Your task to perform on an android device: change notification settings in the gmail app Image 0: 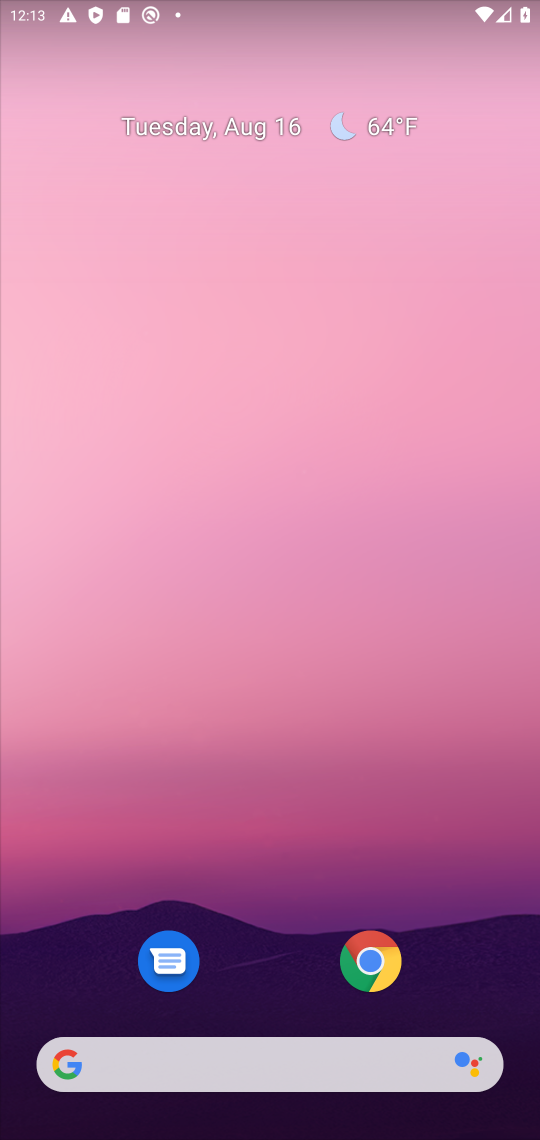
Step 0: drag from (300, 937) to (357, 86)
Your task to perform on an android device: change notification settings in the gmail app Image 1: 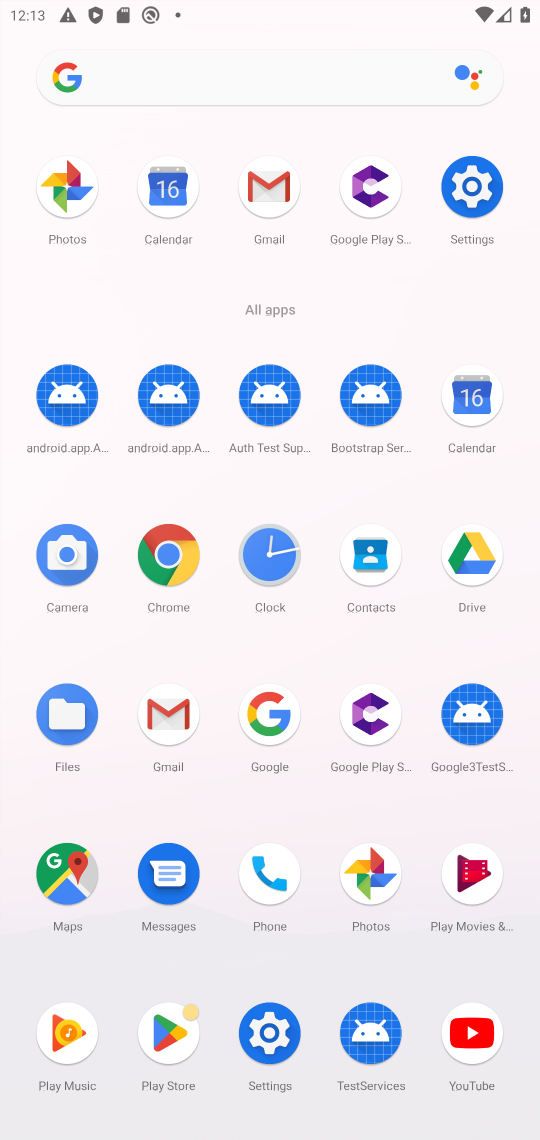
Step 1: click (163, 708)
Your task to perform on an android device: change notification settings in the gmail app Image 2: 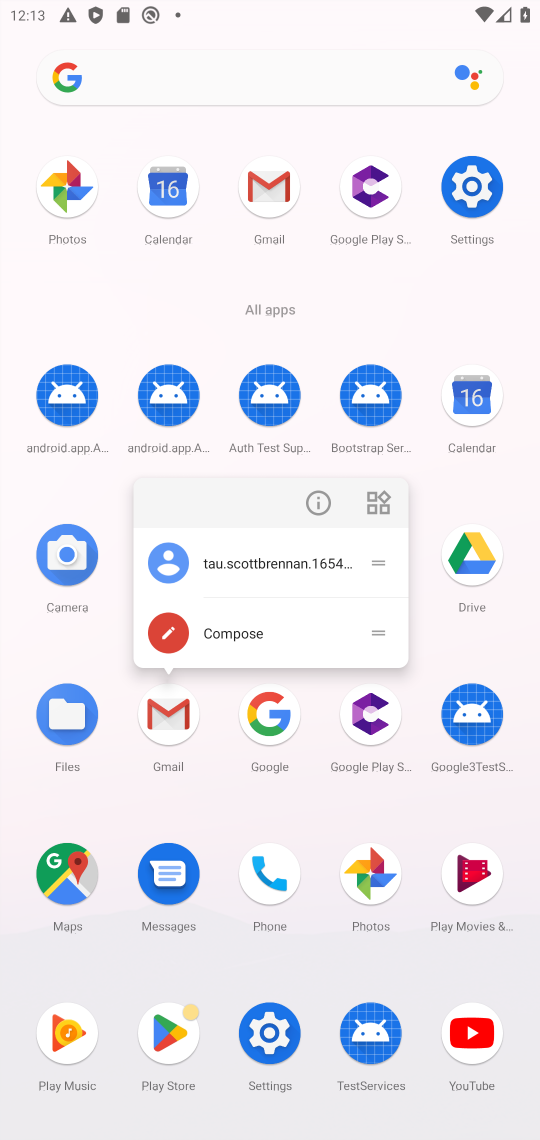
Step 2: click (315, 508)
Your task to perform on an android device: change notification settings in the gmail app Image 3: 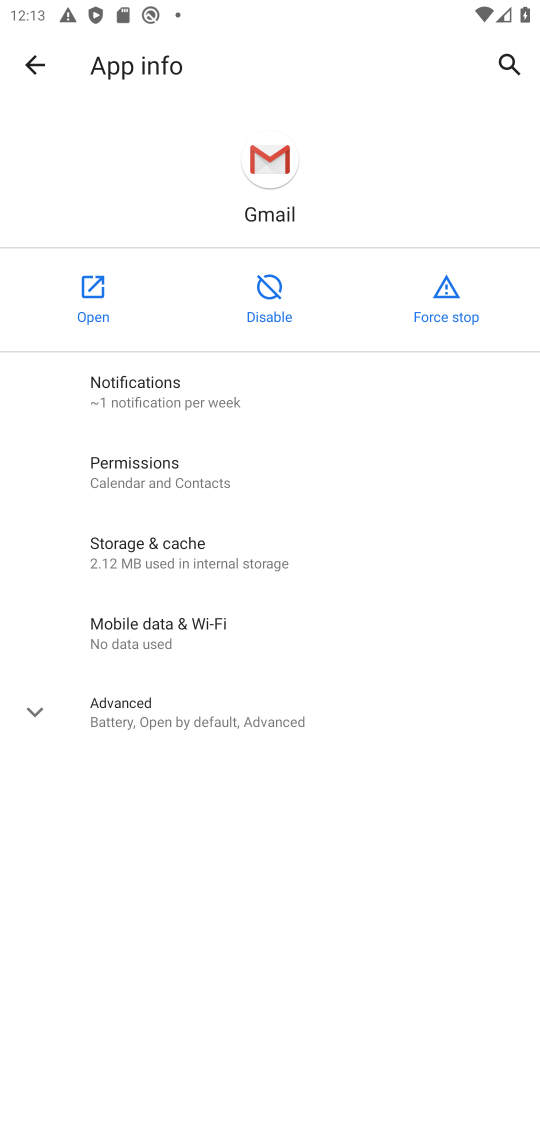
Step 3: click (196, 401)
Your task to perform on an android device: change notification settings in the gmail app Image 4: 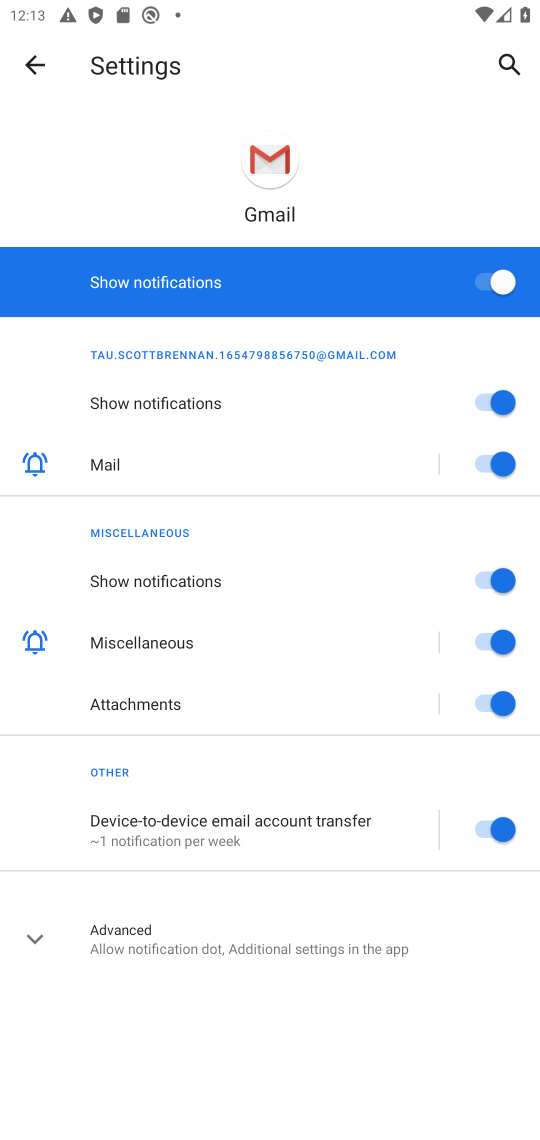
Step 4: click (455, 264)
Your task to perform on an android device: change notification settings in the gmail app Image 5: 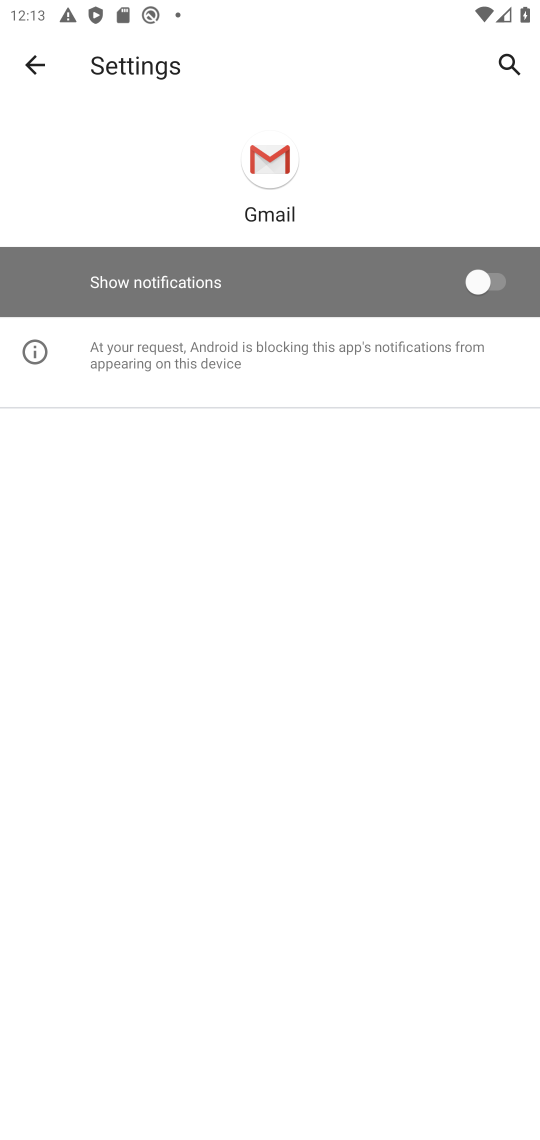
Step 5: task complete